Your task to perform on an android device: Go to internet settings Image 0: 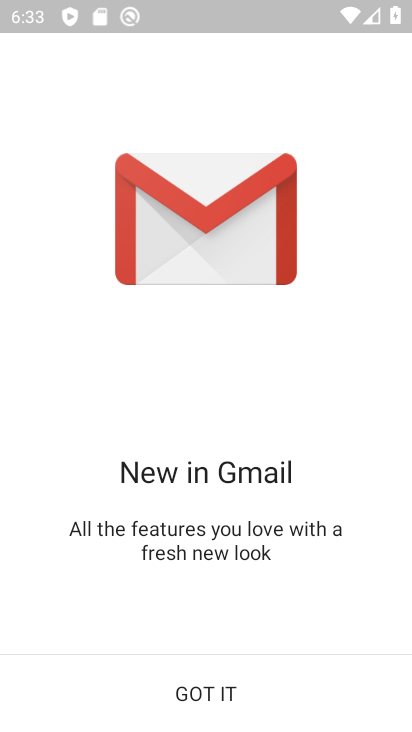
Step 0: press home button
Your task to perform on an android device: Go to internet settings Image 1: 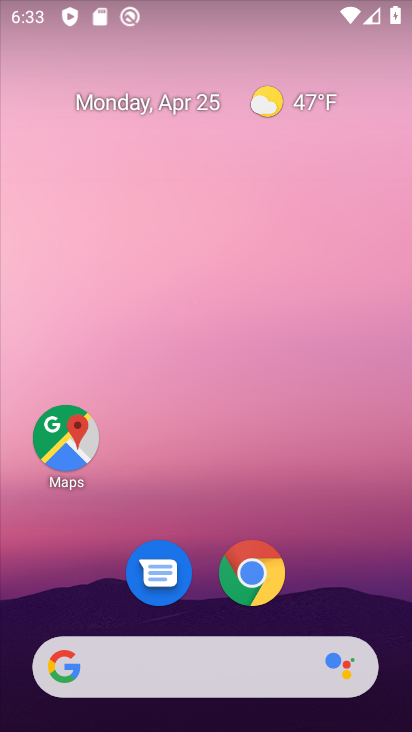
Step 1: drag from (317, 566) to (206, 14)
Your task to perform on an android device: Go to internet settings Image 2: 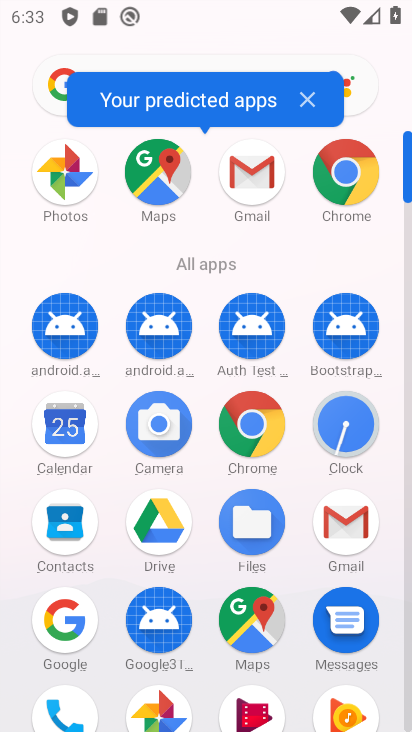
Step 2: drag from (209, 680) to (172, 99)
Your task to perform on an android device: Go to internet settings Image 3: 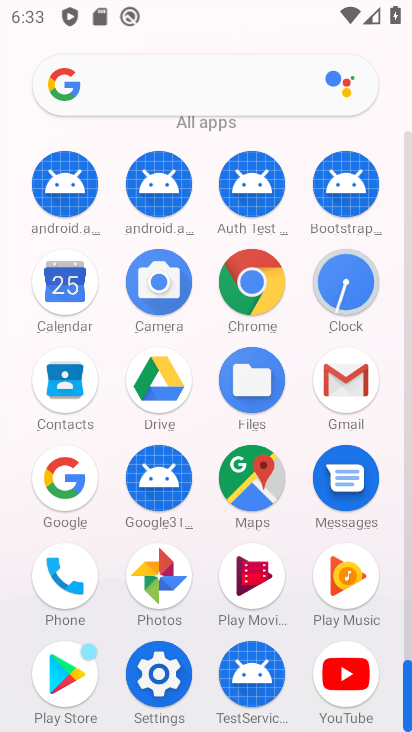
Step 3: click (164, 678)
Your task to perform on an android device: Go to internet settings Image 4: 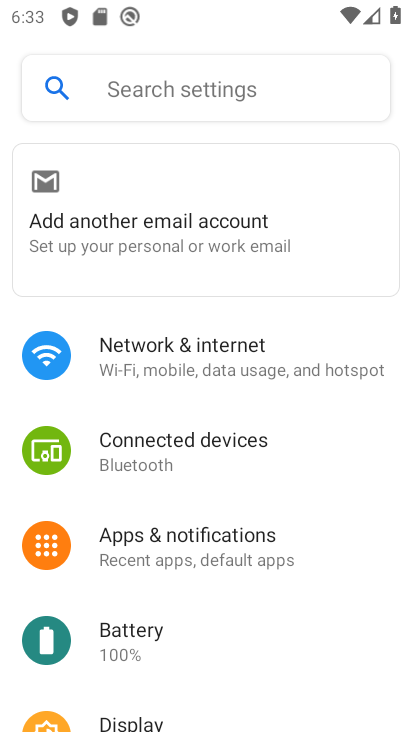
Step 4: click (187, 362)
Your task to perform on an android device: Go to internet settings Image 5: 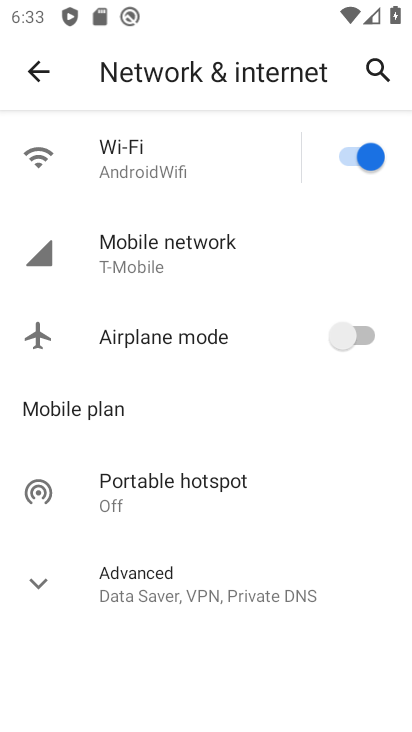
Step 5: click (185, 270)
Your task to perform on an android device: Go to internet settings Image 6: 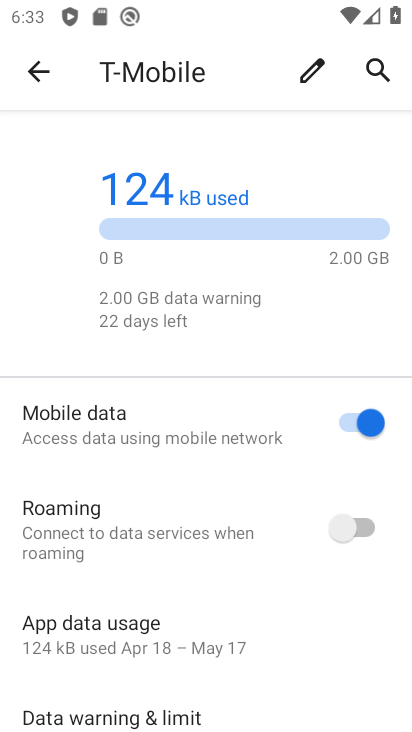
Step 6: task complete